Your task to perform on an android device: View the shopping cart on walmart.com. Image 0: 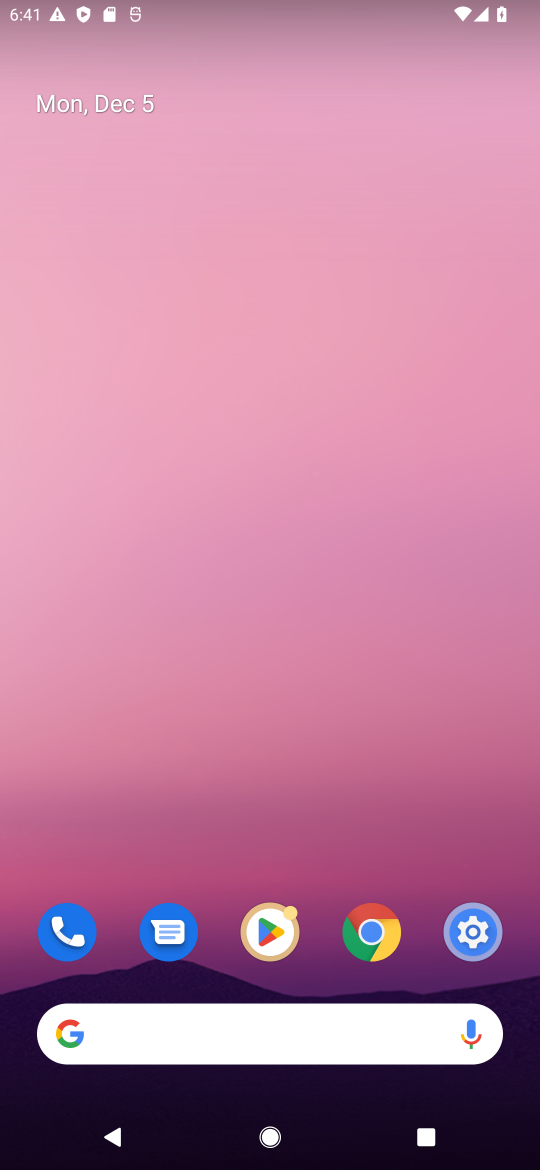
Step 0: drag from (208, 1003) to (207, 377)
Your task to perform on an android device: View the shopping cart on walmart.com. Image 1: 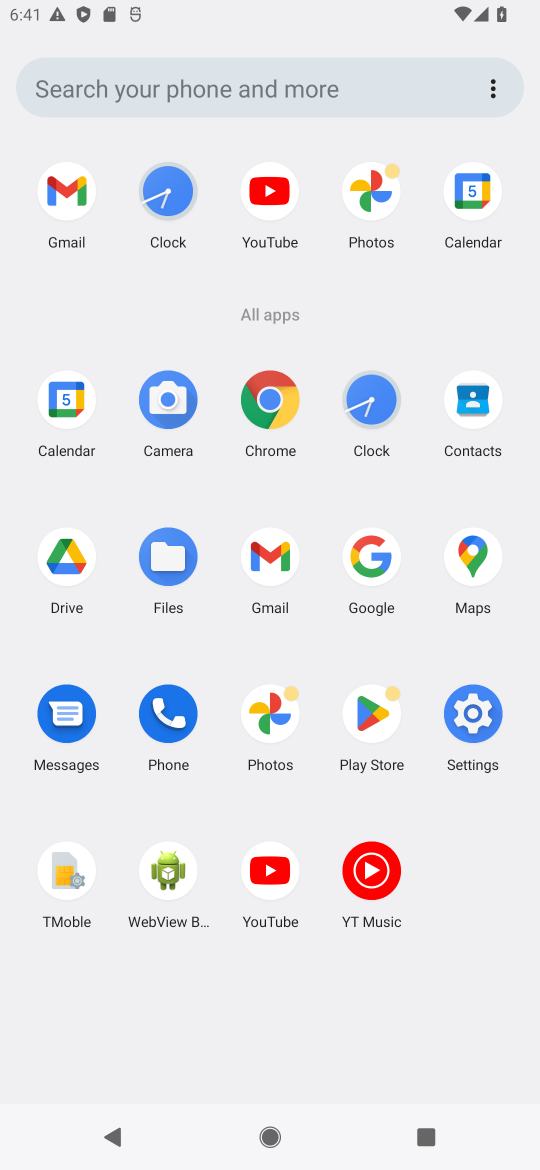
Step 1: click (369, 558)
Your task to perform on an android device: View the shopping cart on walmart.com. Image 2: 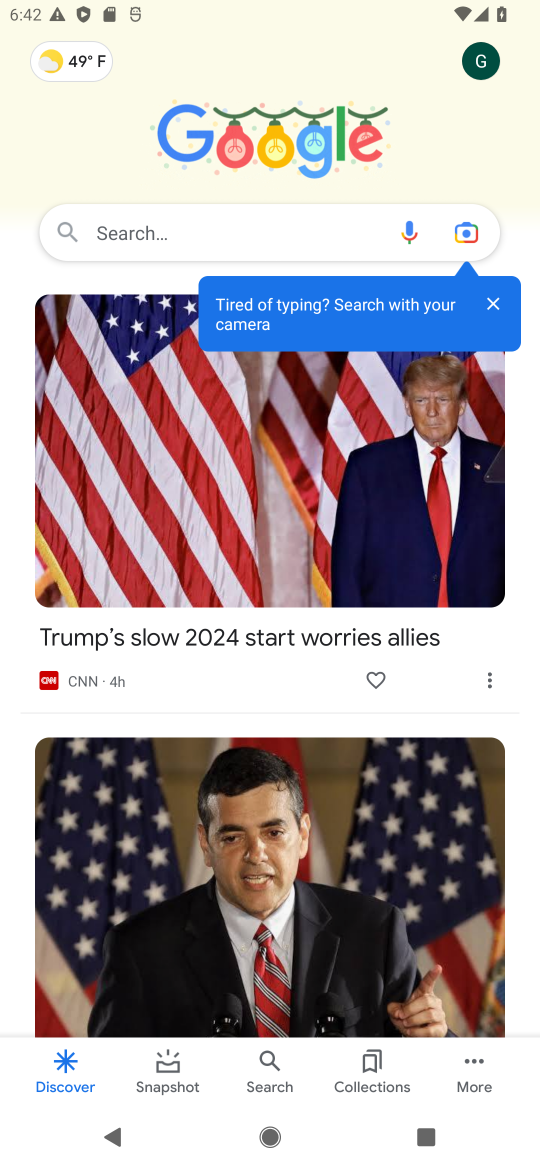
Step 2: click (184, 218)
Your task to perform on an android device: View the shopping cart on walmart.com. Image 3: 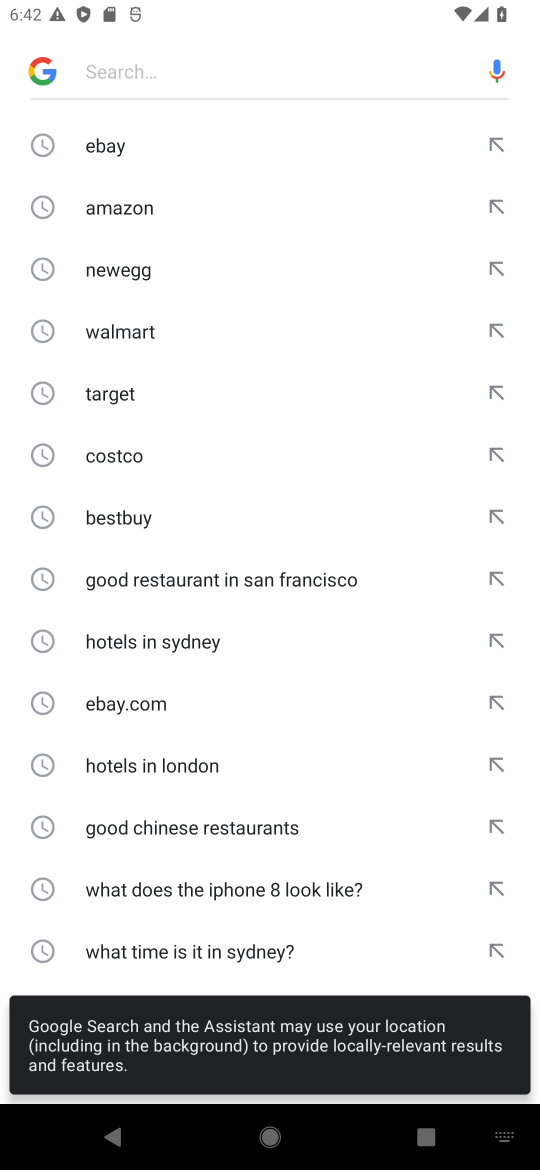
Step 3: click (136, 336)
Your task to perform on an android device: View the shopping cart on walmart.com. Image 4: 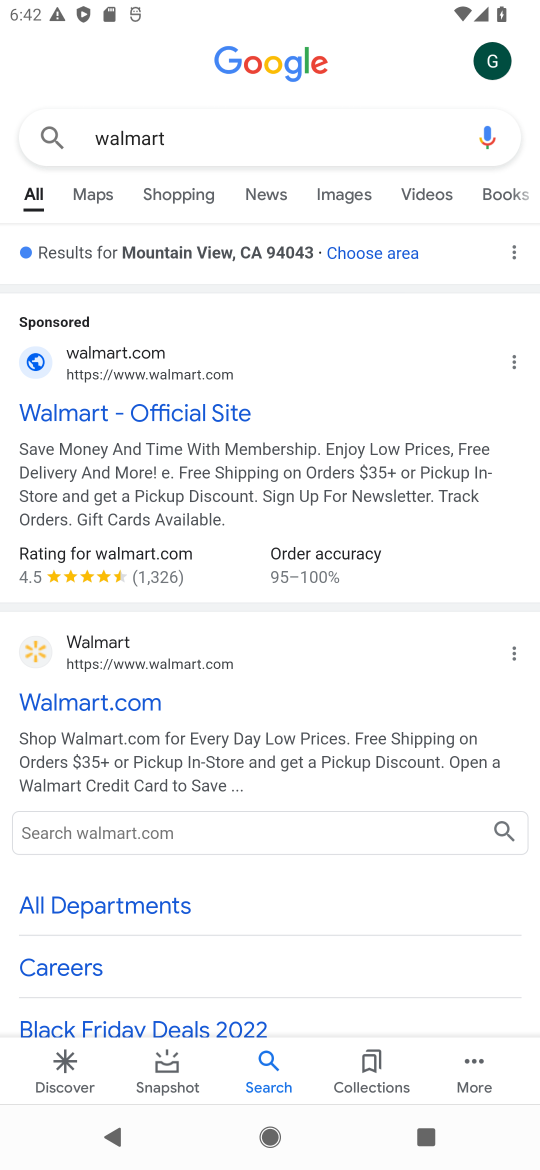
Step 4: click (149, 415)
Your task to perform on an android device: View the shopping cart on walmart.com. Image 5: 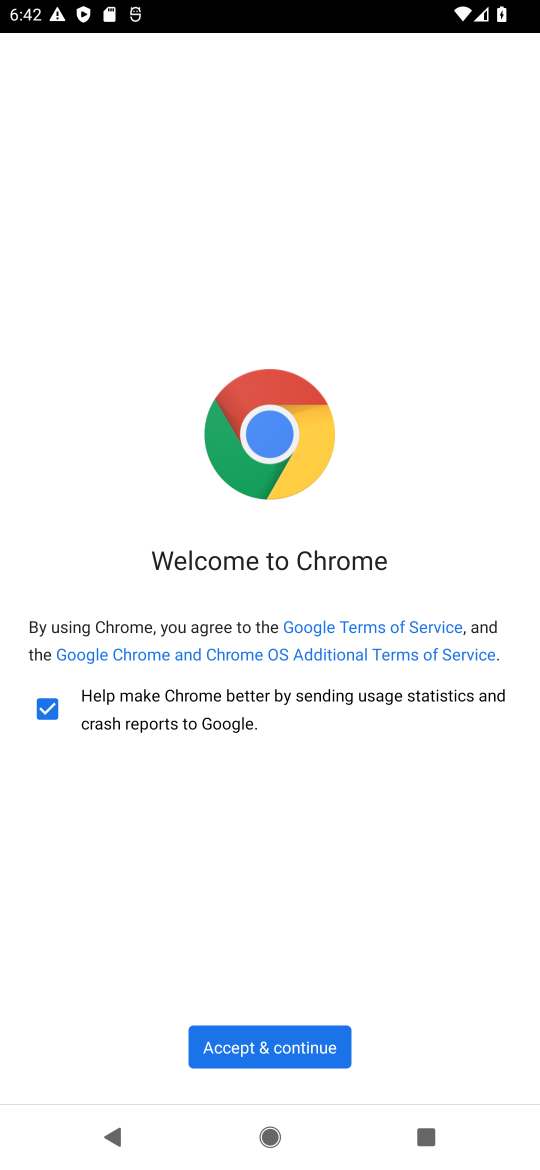
Step 5: click (288, 1048)
Your task to perform on an android device: View the shopping cart on walmart.com. Image 6: 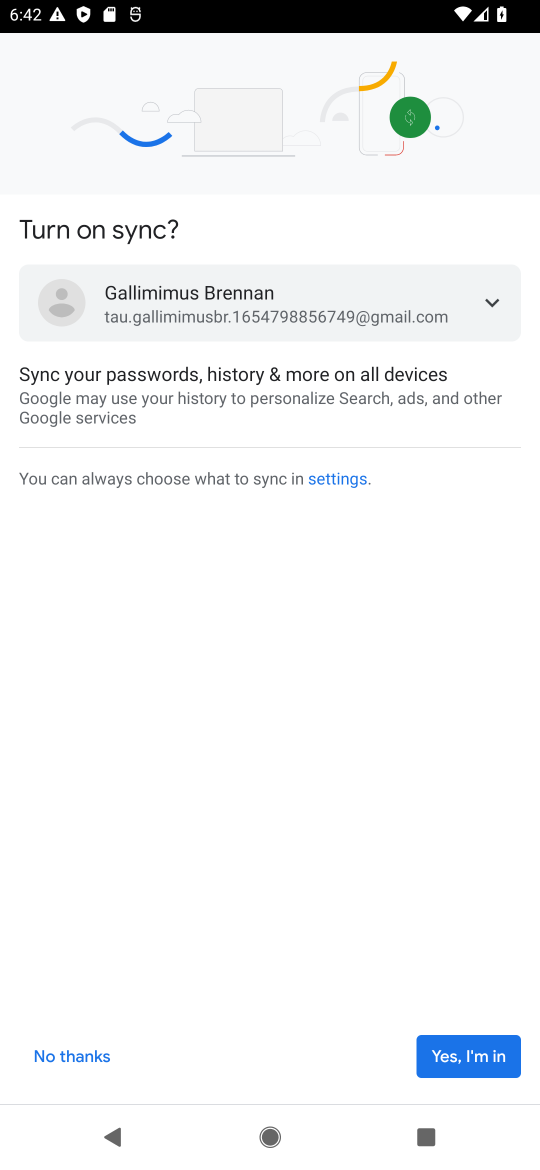
Step 6: click (437, 1054)
Your task to perform on an android device: View the shopping cart on walmart.com. Image 7: 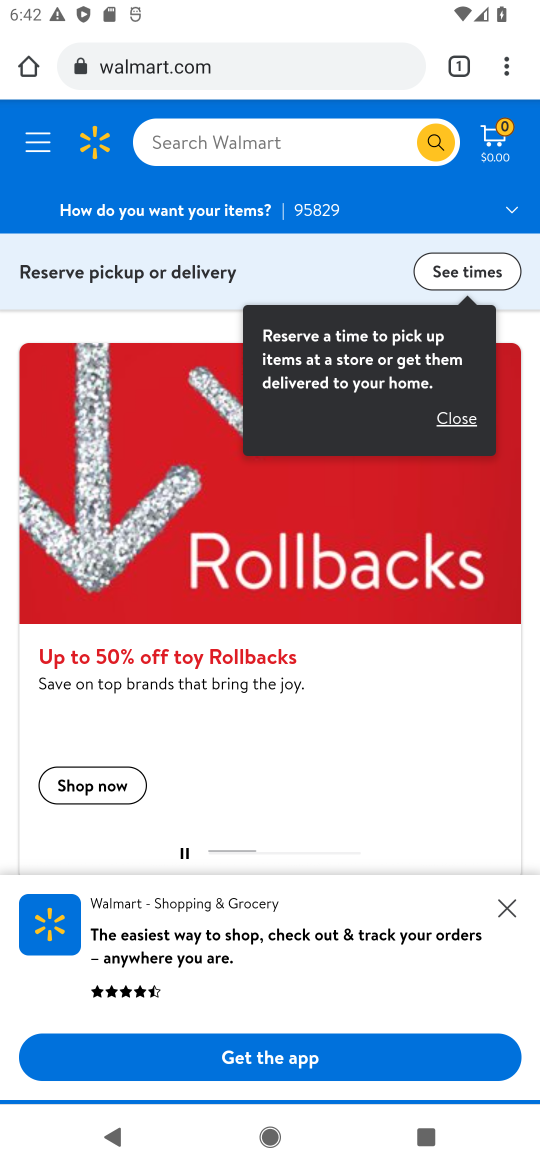
Step 7: click (192, 145)
Your task to perform on an android device: View the shopping cart on walmart.com. Image 8: 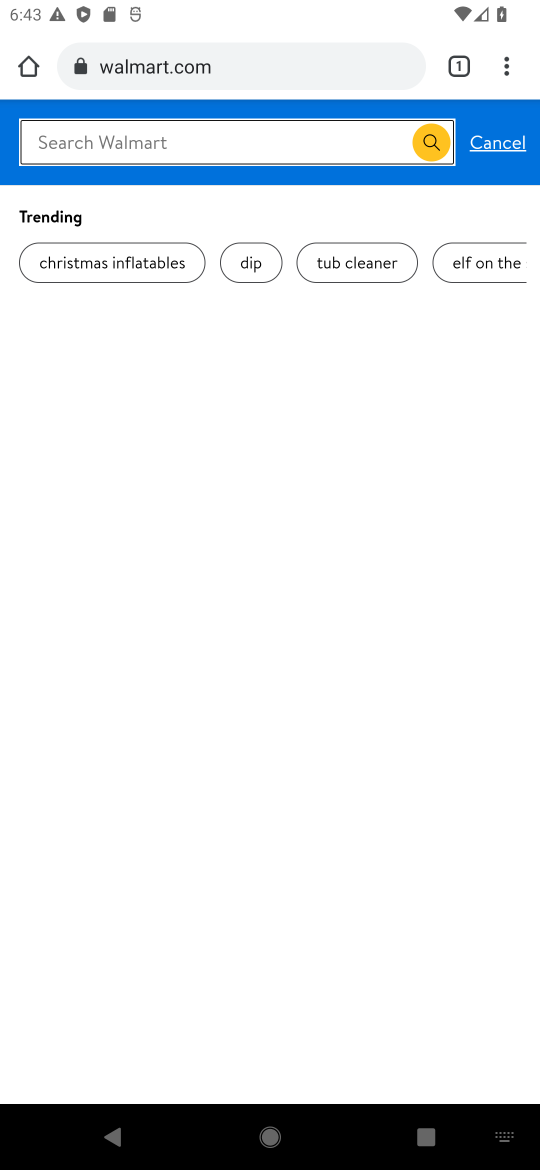
Step 8: press back button
Your task to perform on an android device: View the shopping cart on walmart.com. Image 9: 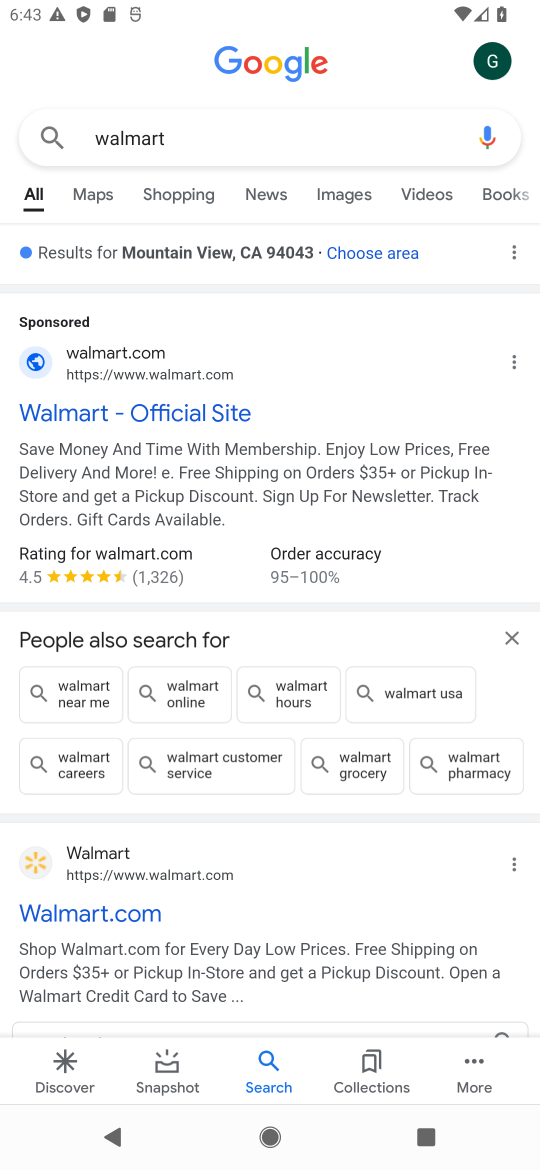
Step 9: click (115, 417)
Your task to perform on an android device: View the shopping cart on walmart.com. Image 10: 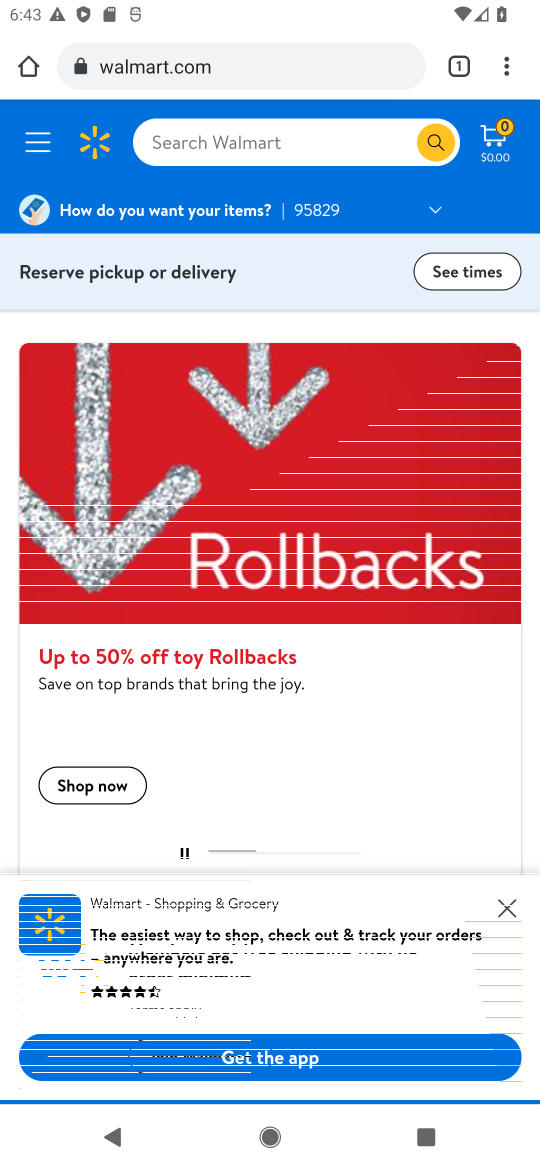
Step 10: click (486, 145)
Your task to perform on an android device: View the shopping cart on walmart.com. Image 11: 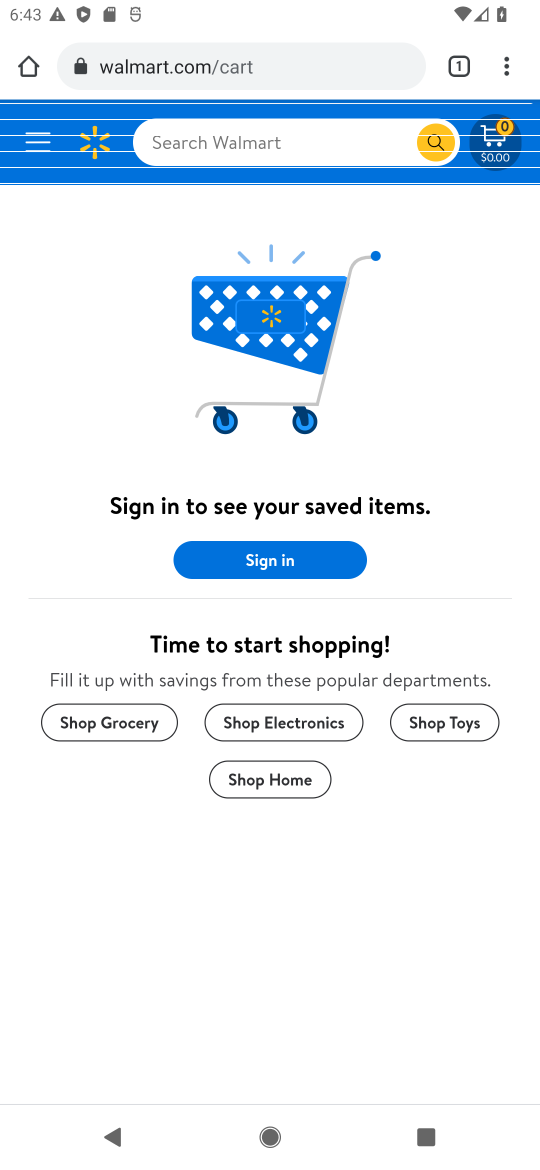
Step 11: task complete